Your task to perform on an android device: Install the Yelp app Image 0: 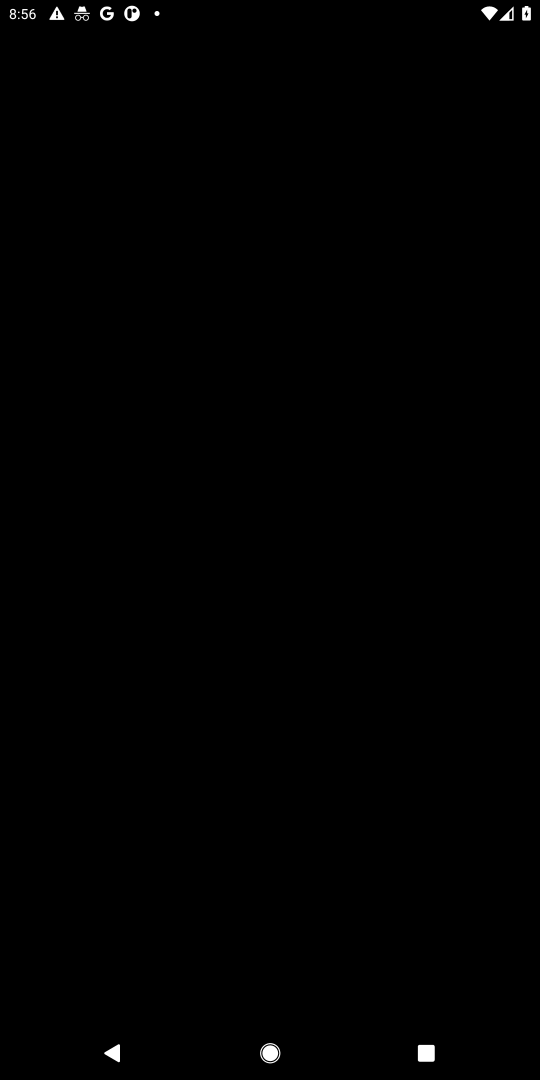
Step 0: press home button
Your task to perform on an android device: Install the Yelp app Image 1: 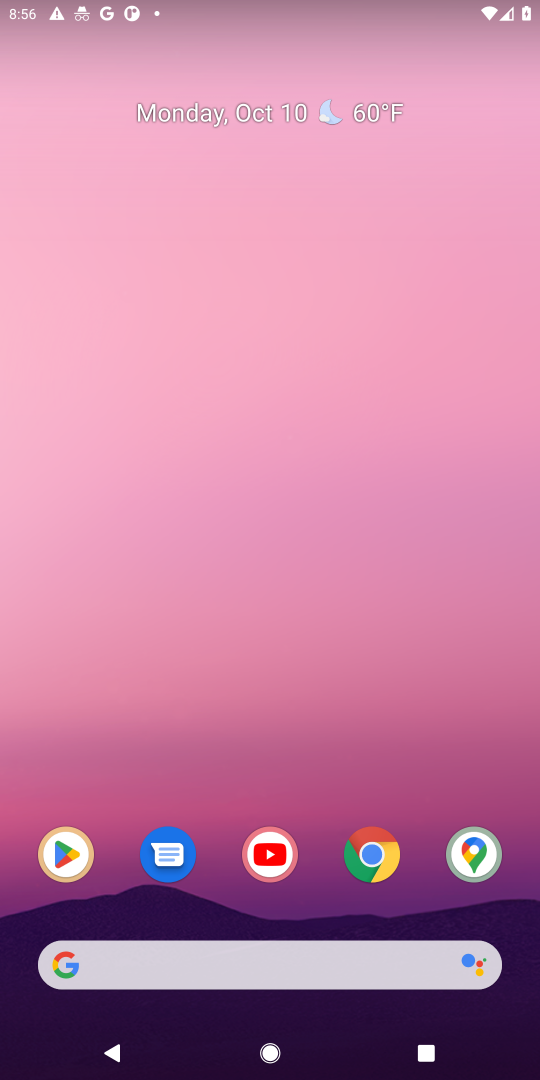
Step 1: drag from (286, 968) to (526, 156)
Your task to perform on an android device: Install the Yelp app Image 2: 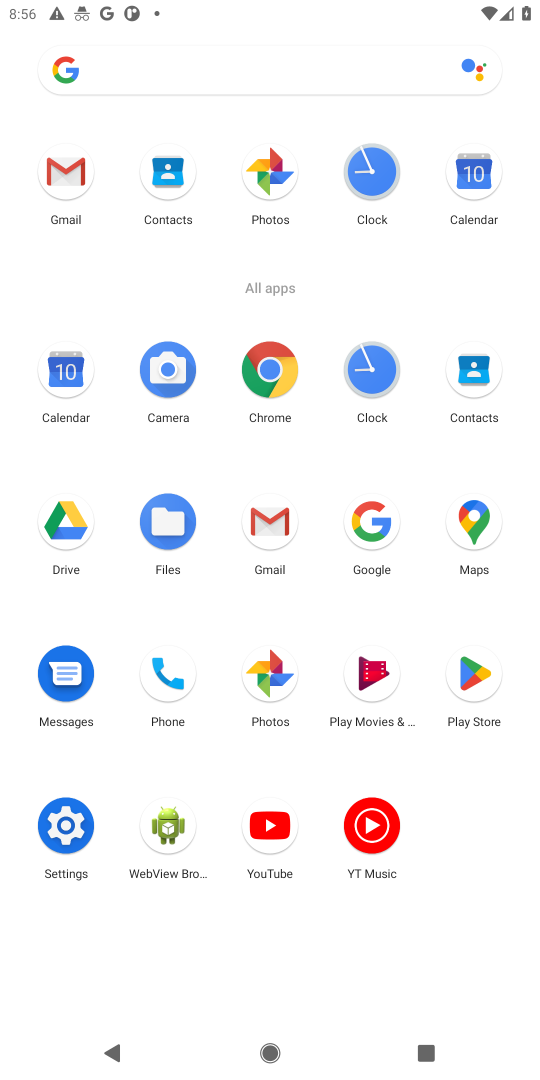
Step 2: click (474, 669)
Your task to perform on an android device: Install the Yelp app Image 3: 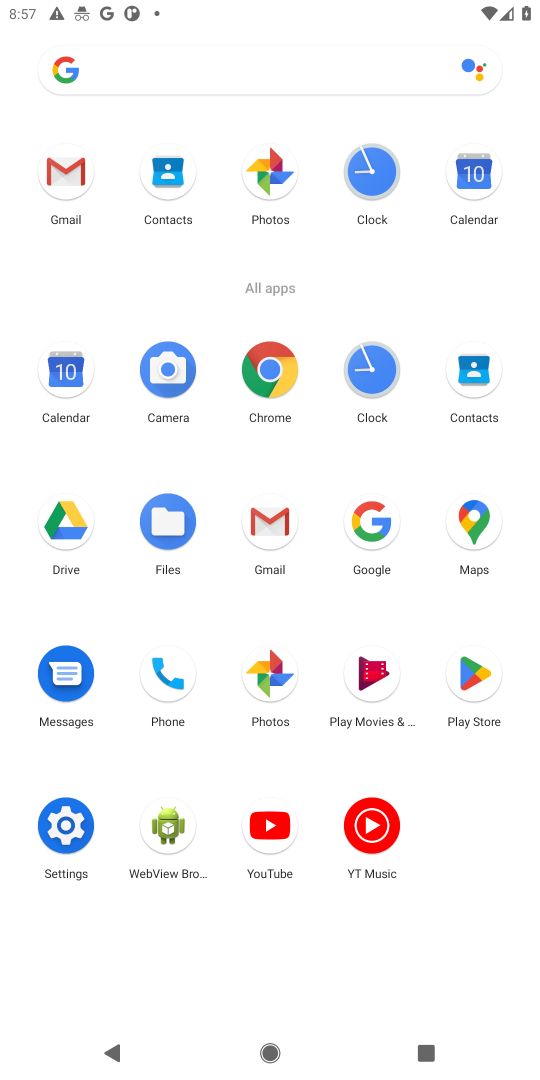
Step 3: task complete